Your task to perform on an android device: open chrome and create a bookmark for the current page Image 0: 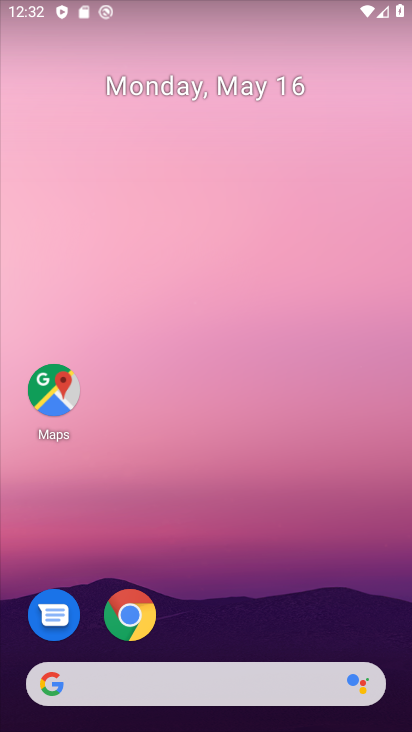
Step 0: drag from (303, 595) to (278, 104)
Your task to perform on an android device: open chrome and create a bookmark for the current page Image 1: 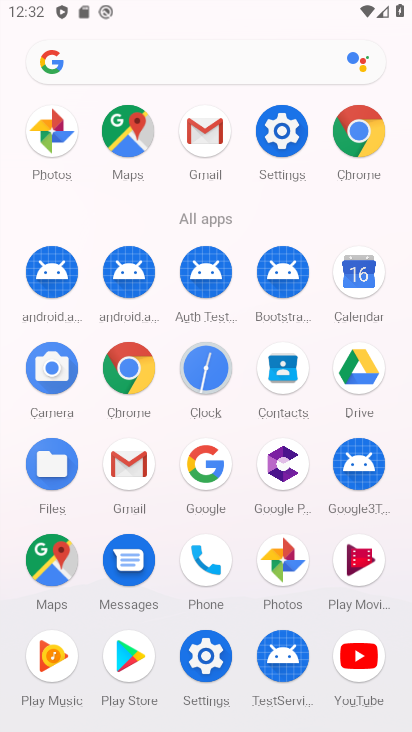
Step 1: click (354, 130)
Your task to perform on an android device: open chrome and create a bookmark for the current page Image 2: 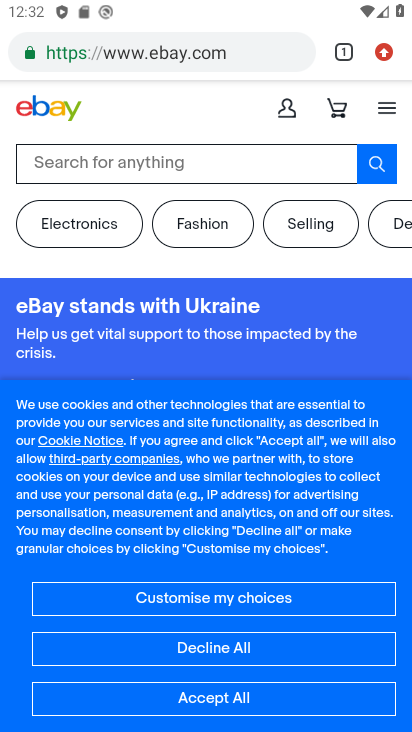
Step 2: task complete